Your task to perform on an android device: delete location history Image 0: 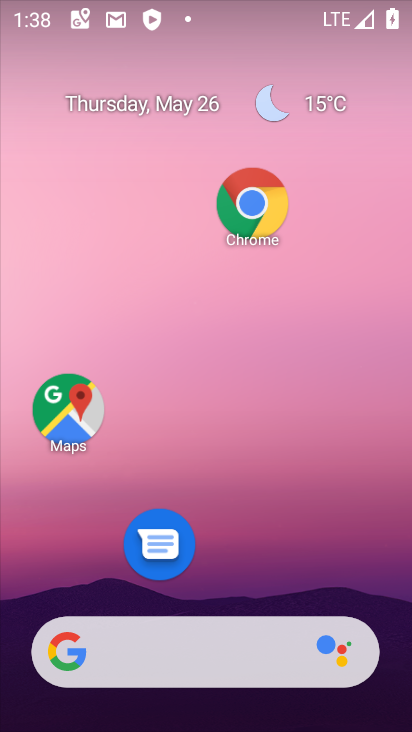
Step 0: click (74, 414)
Your task to perform on an android device: delete location history Image 1: 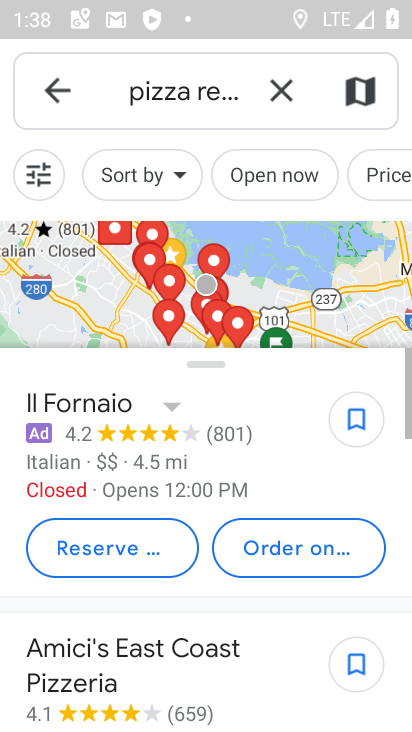
Step 1: click (60, 86)
Your task to perform on an android device: delete location history Image 2: 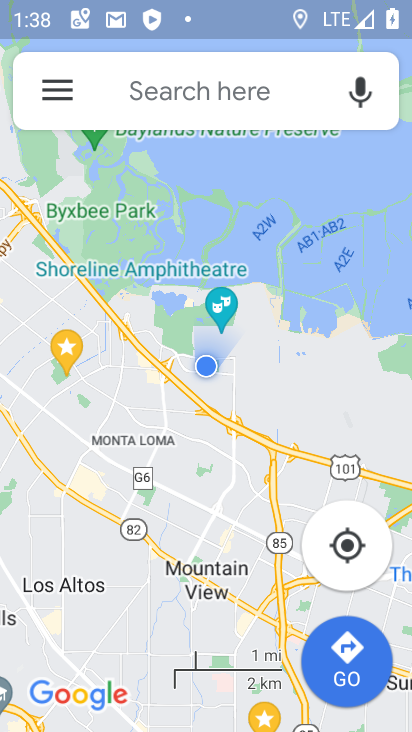
Step 2: click (60, 86)
Your task to perform on an android device: delete location history Image 3: 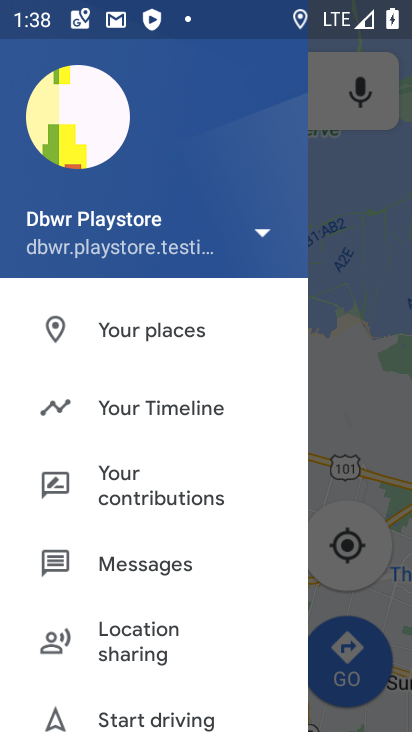
Step 3: click (154, 414)
Your task to perform on an android device: delete location history Image 4: 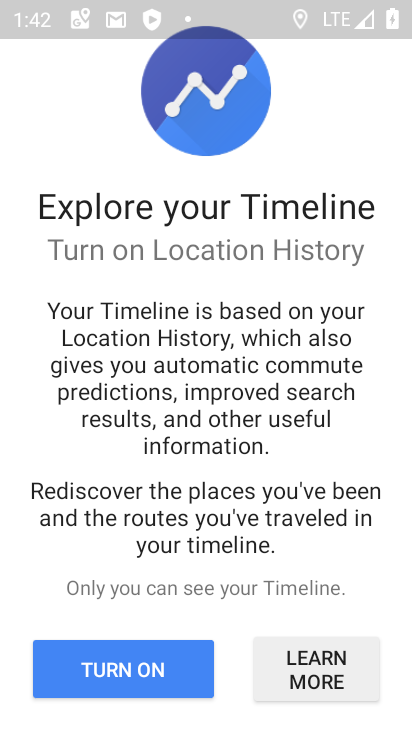
Step 4: drag from (227, 593) to (238, 134)
Your task to perform on an android device: delete location history Image 5: 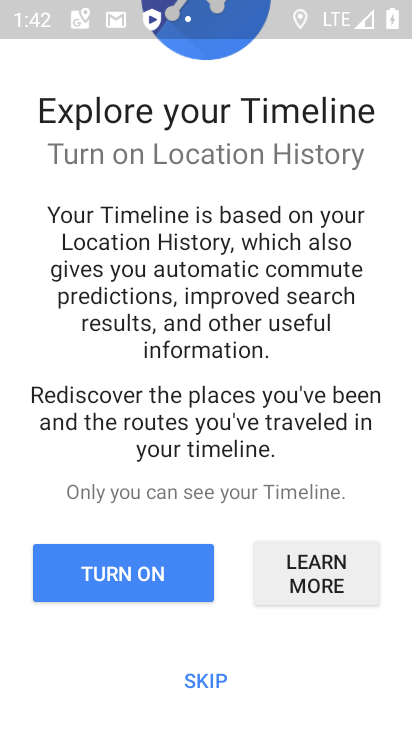
Step 5: click (196, 679)
Your task to perform on an android device: delete location history Image 6: 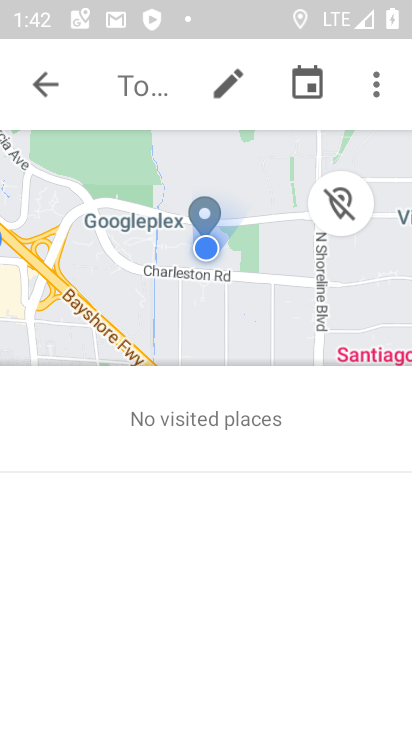
Step 6: click (378, 89)
Your task to perform on an android device: delete location history Image 7: 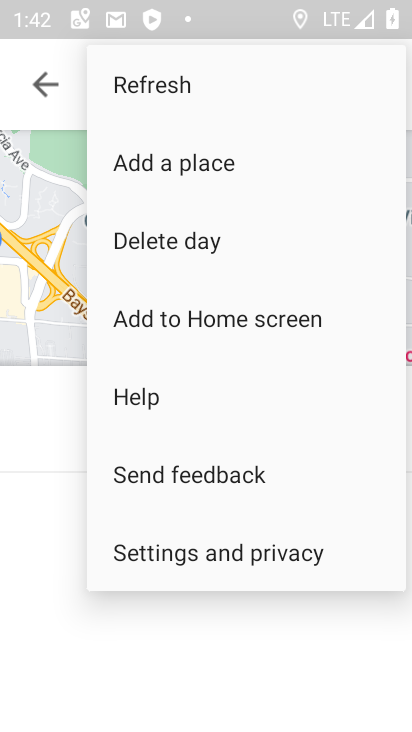
Step 7: click (239, 563)
Your task to perform on an android device: delete location history Image 8: 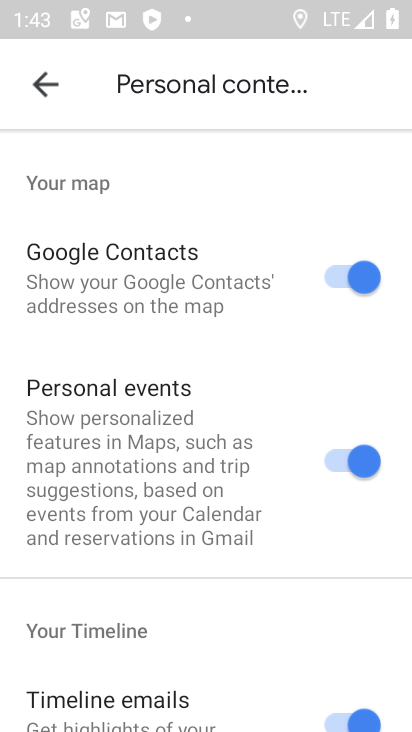
Step 8: drag from (165, 703) to (205, 92)
Your task to perform on an android device: delete location history Image 9: 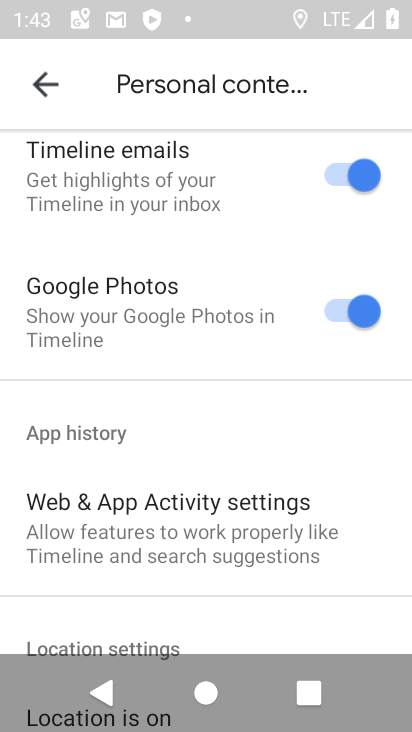
Step 9: drag from (216, 594) to (281, 53)
Your task to perform on an android device: delete location history Image 10: 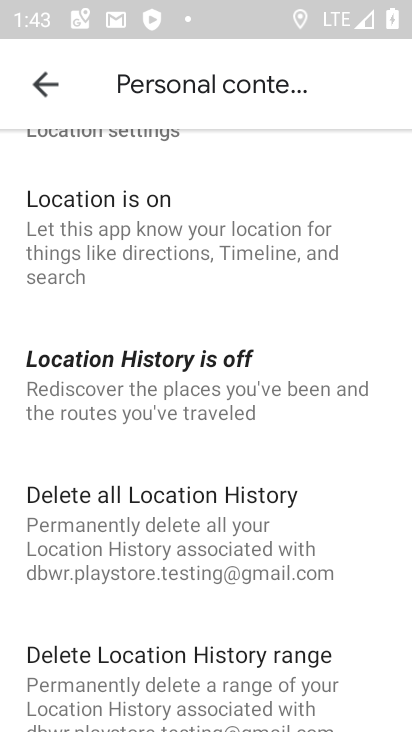
Step 10: click (190, 529)
Your task to perform on an android device: delete location history Image 11: 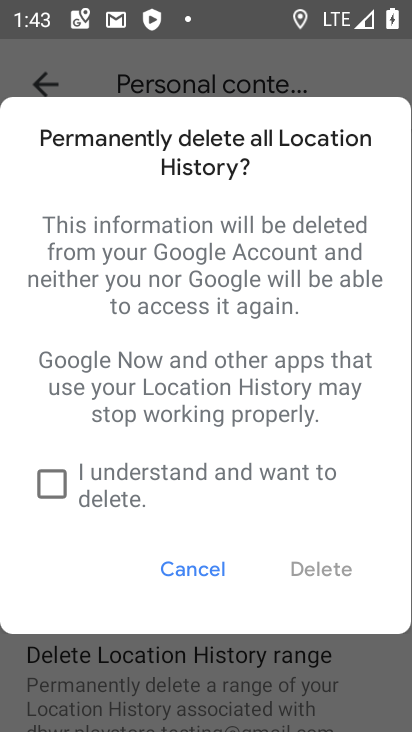
Step 11: click (39, 475)
Your task to perform on an android device: delete location history Image 12: 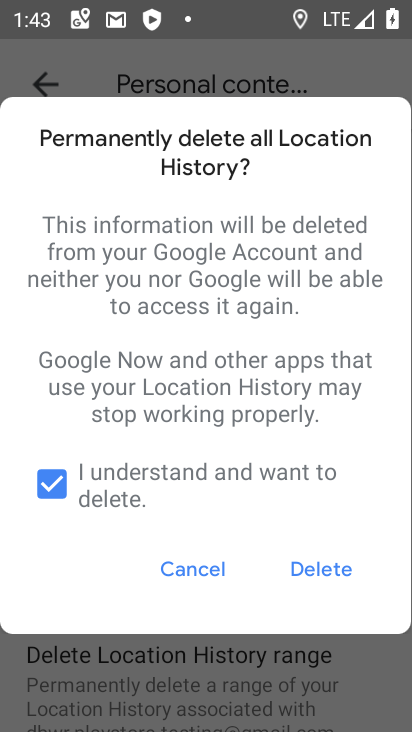
Step 12: click (315, 566)
Your task to perform on an android device: delete location history Image 13: 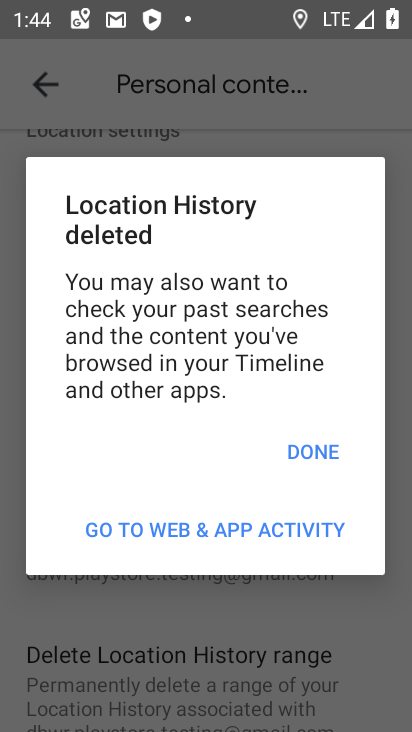
Step 13: task complete